Your task to perform on an android device: allow cookies in the chrome app Image 0: 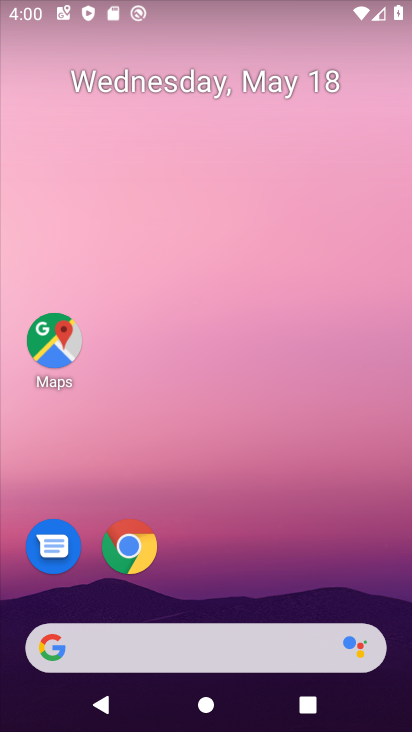
Step 0: click (128, 539)
Your task to perform on an android device: allow cookies in the chrome app Image 1: 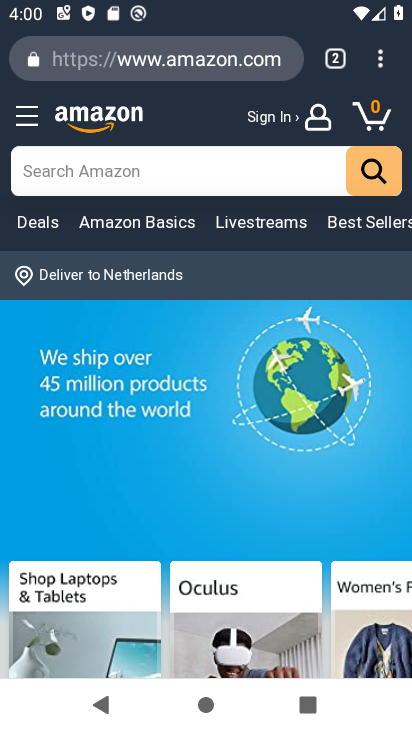
Step 1: click (382, 55)
Your task to perform on an android device: allow cookies in the chrome app Image 2: 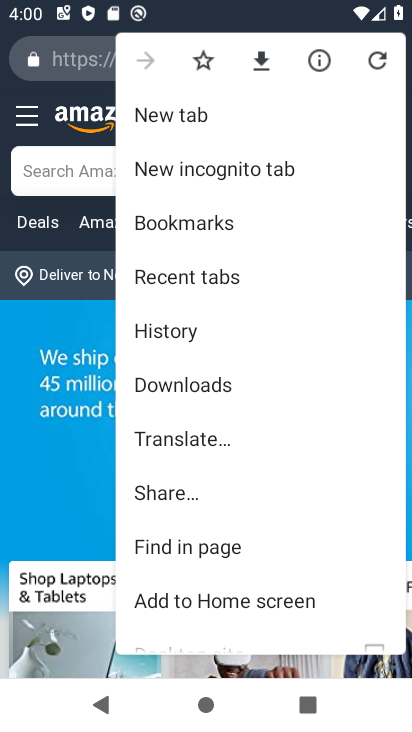
Step 2: drag from (184, 564) to (216, 276)
Your task to perform on an android device: allow cookies in the chrome app Image 3: 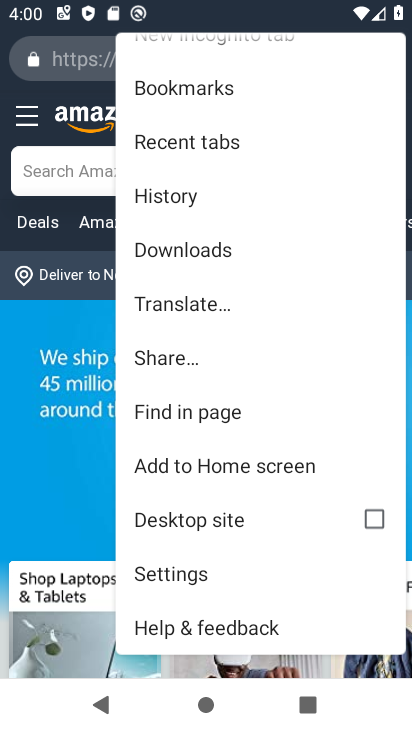
Step 3: click (162, 569)
Your task to perform on an android device: allow cookies in the chrome app Image 4: 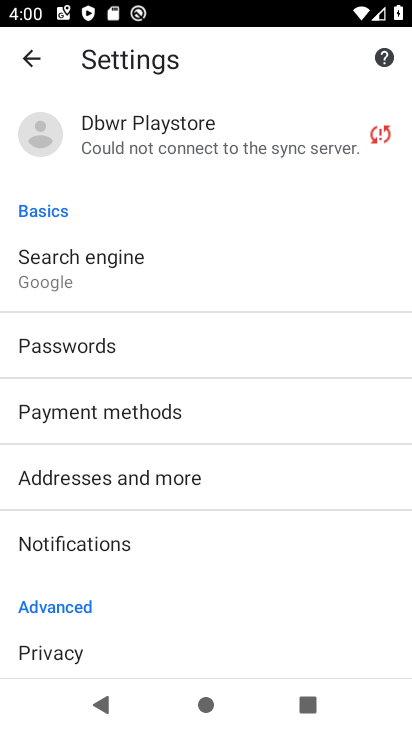
Step 4: drag from (96, 596) to (144, 292)
Your task to perform on an android device: allow cookies in the chrome app Image 5: 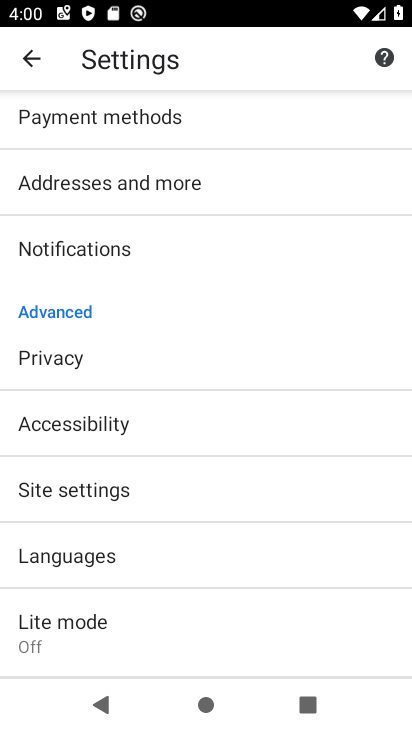
Step 5: click (105, 498)
Your task to perform on an android device: allow cookies in the chrome app Image 6: 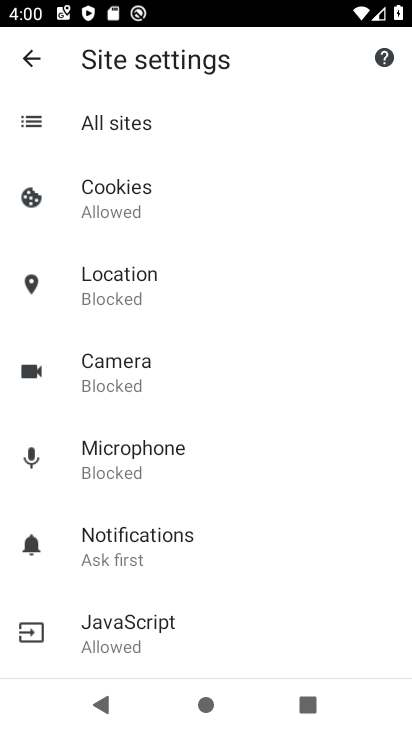
Step 6: click (139, 190)
Your task to perform on an android device: allow cookies in the chrome app Image 7: 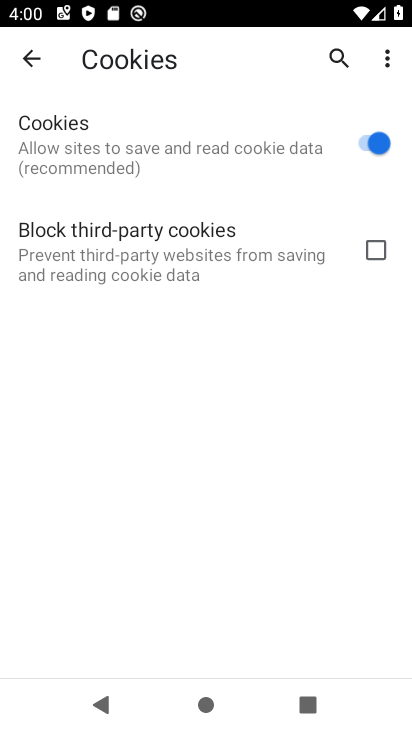
Step 7: task complete